Your task to perform on an android device: show emergency info Image 0: 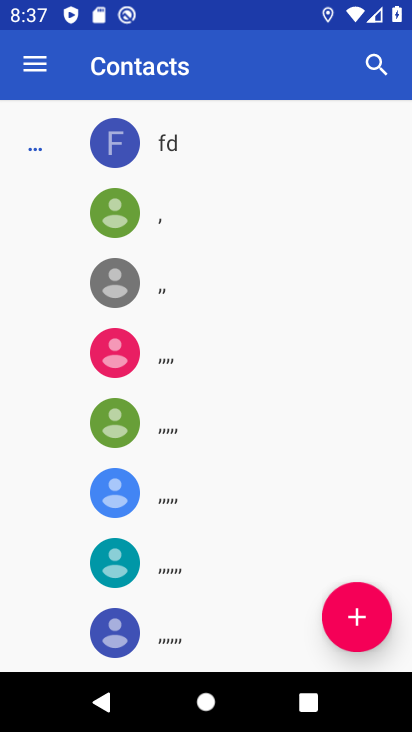
Step 0: press home button
Your task to perform on an android device: show emergency info Image 1: 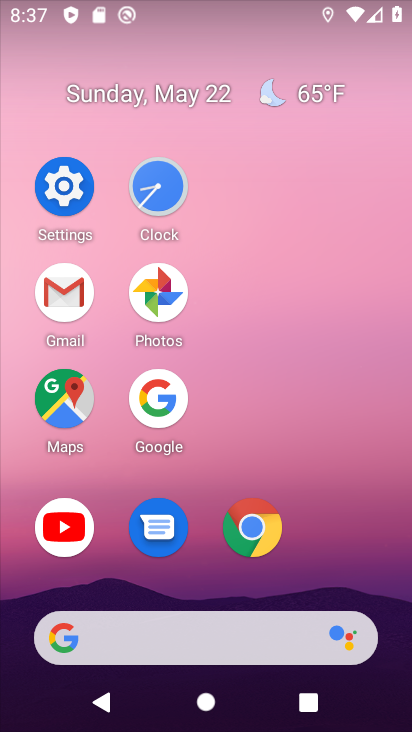
Step 1: click (71, 205)
Your task to perform on an android device: show emergency info Image 2: 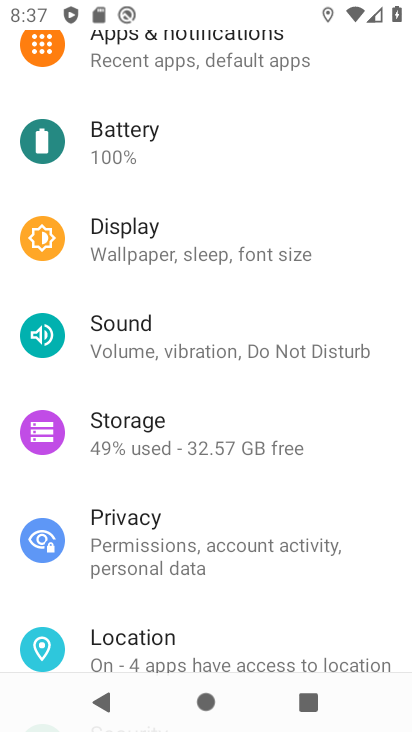
Step 2: drag from (312, 599) to (251, 185)
Your task to perform on an android device: show emergency info Image 3: 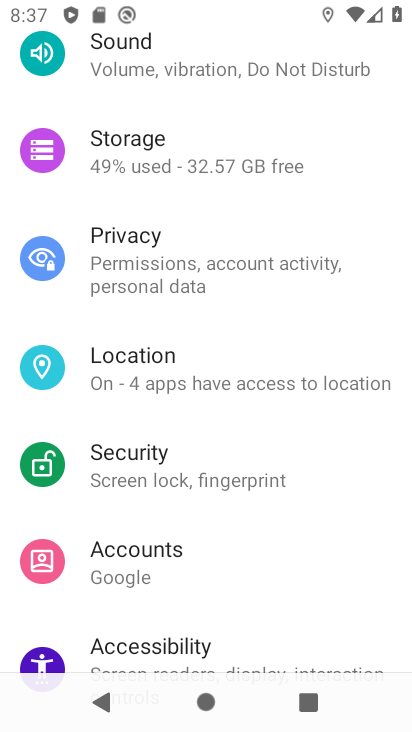
Step 3: drag from (256, 590) to (206, 218)
Your task to perform on an android device: show emergency info Image 4: 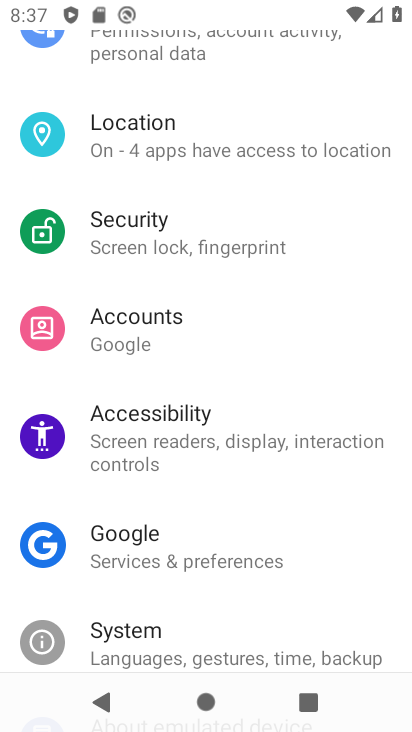
Step 4: drag from (210, 617) to (192, 194)
Your task to perform on an android device: show emergency info Image 5: 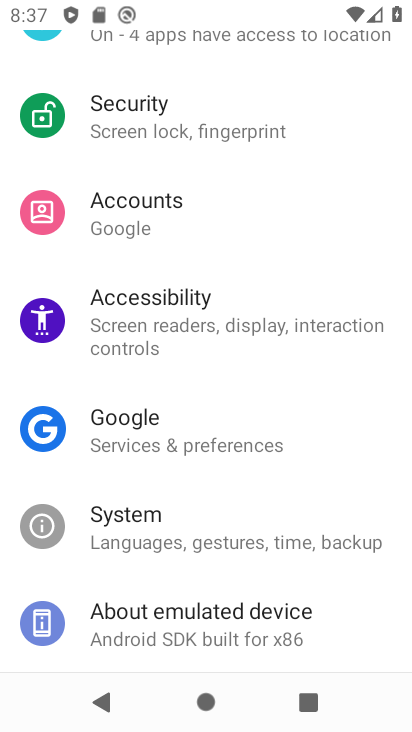
Step 5: click (201, 612)
Your task to perform on an android device: show emergency info Image 6: 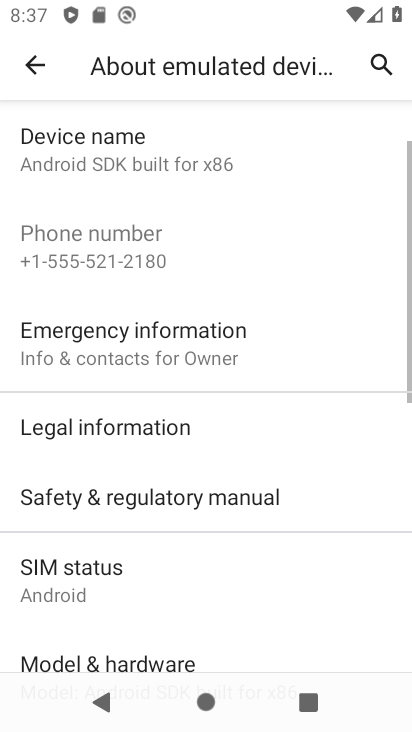
Step 6: click (143, 333)
Your task to perform on an android device: show emergency info Image 7: 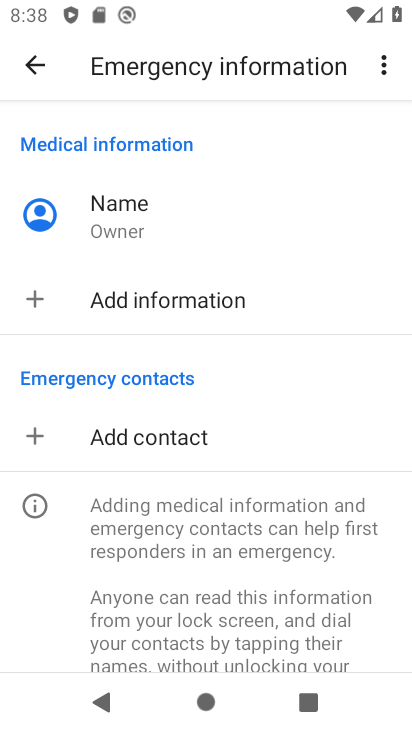
Step 7: task complete